Your task to perform on an android device: turn off improve location accuracy Image 0: 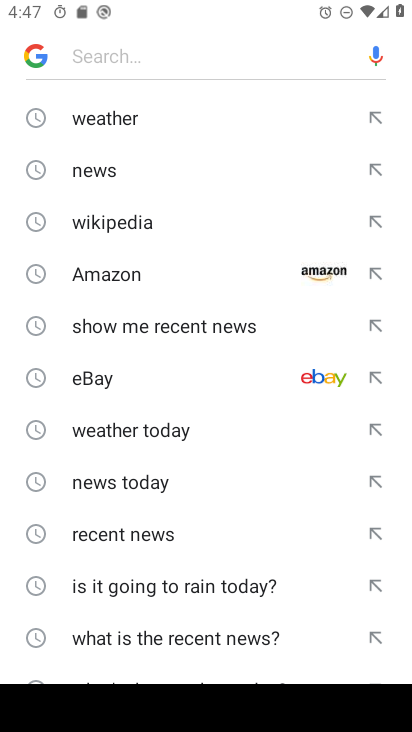
Step 0: press home button
Your task to perform on an android device: turn off improve location accuracy Image 1: 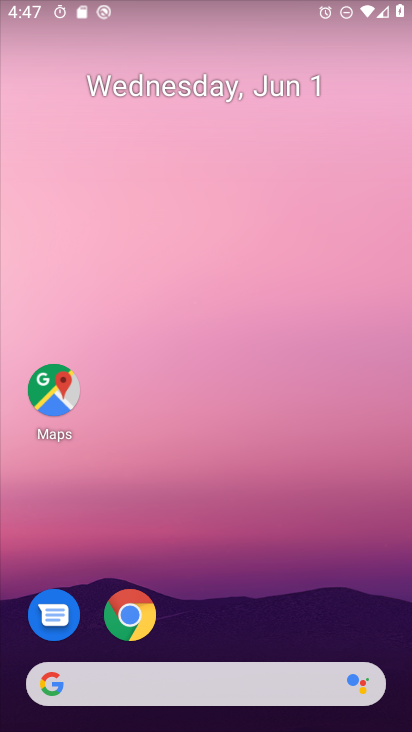
Step 1: drag from (264, 642) to (202, 116)
Your task to perform on an android device: turn off improve location accuracy Image 2: 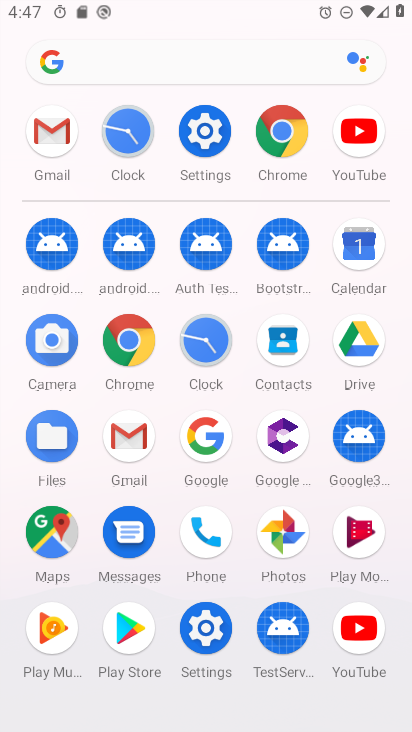
Step 2: click (214, 644)
Your task to perform on an android device: turn off improve location accuracy Image 3: 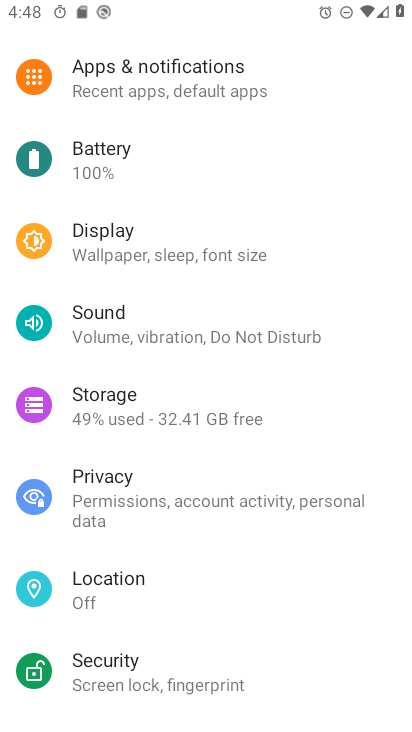
Step 3: drag from (256, 368) to (277, 125)
Your task to perform on an android device: turn off improve location accuracy Image 4: 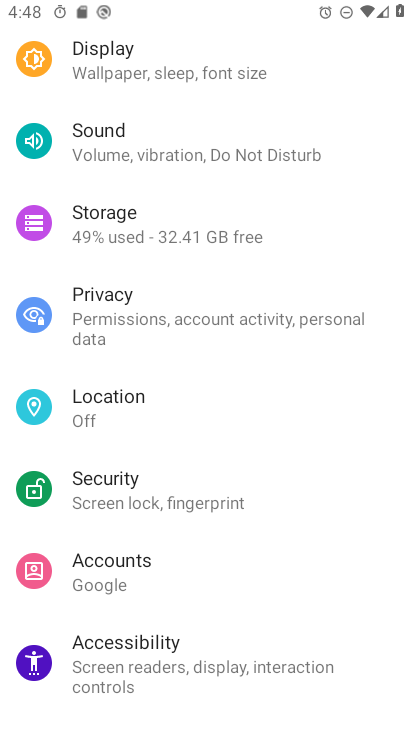
Step 4: click (145, 639)
Your task to perform on an android device: turn off improve location accuracy Image 5: 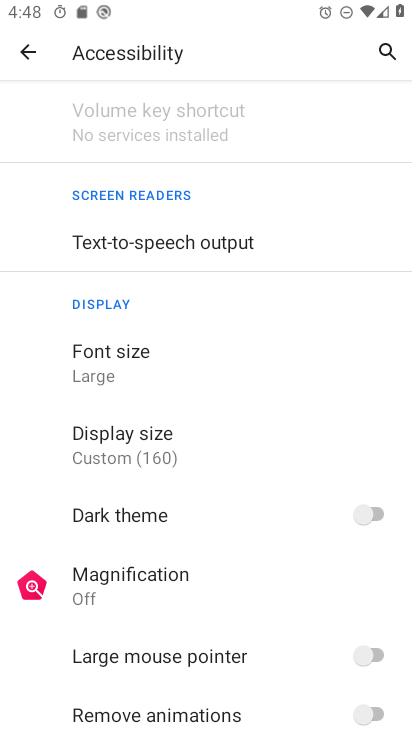
Step 5: drag from (280, 594) to (290, 179)
Your task to perform on an android device: turn off improve location accuracy Image 6: 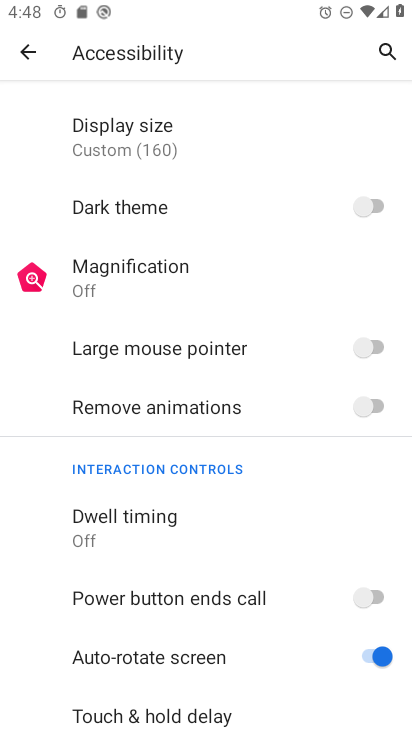
Step 6: drag from (253, 518) to (222, 233)
Your task to perform on an android device: turn off improve location accuracy Image 7: 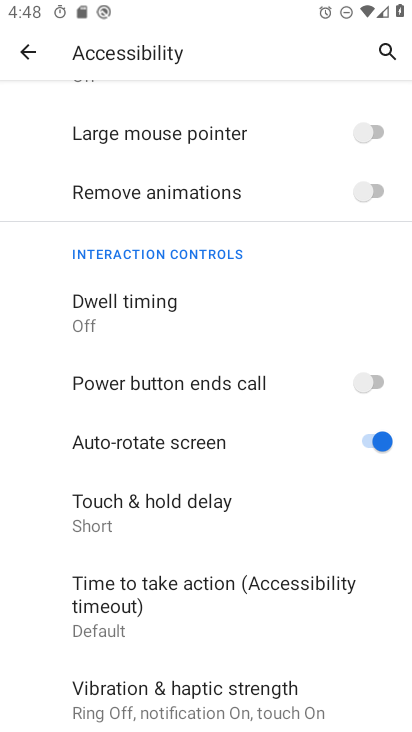
Step 7: drag from (251, 664) to (256, 343)
Your task to perform on an android device: turn off improve location accuracy Image 8: 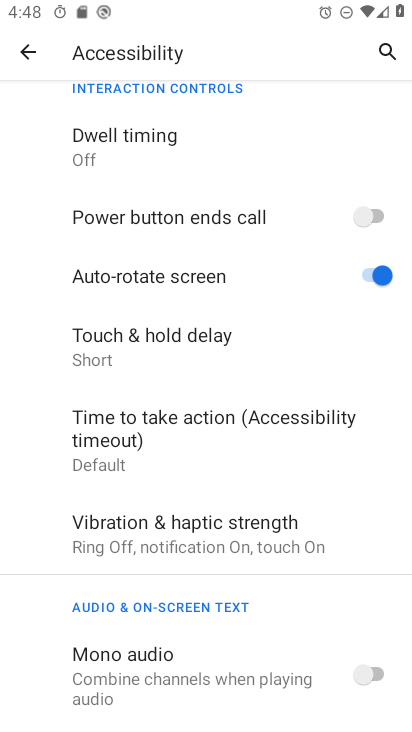
Step 8: drag from (261, 624) to (272, 291)
Your task to perform on an android device: turn off improve location accuracy Image 9: 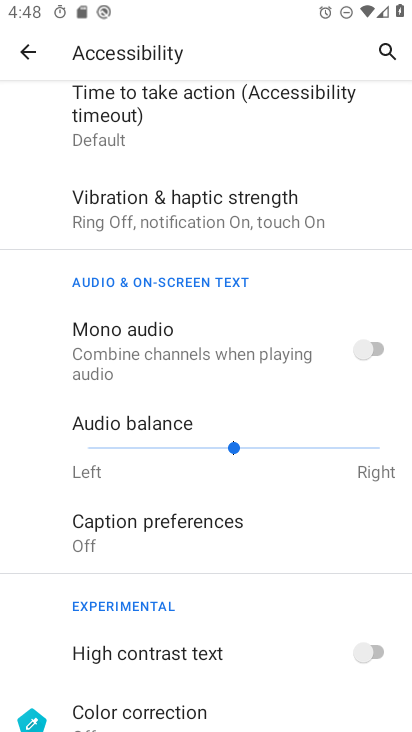
Step 9: drag from (285, 598) to (232, 192)
Your task to perform on an android device: turn off improve location accuracy Image 10: 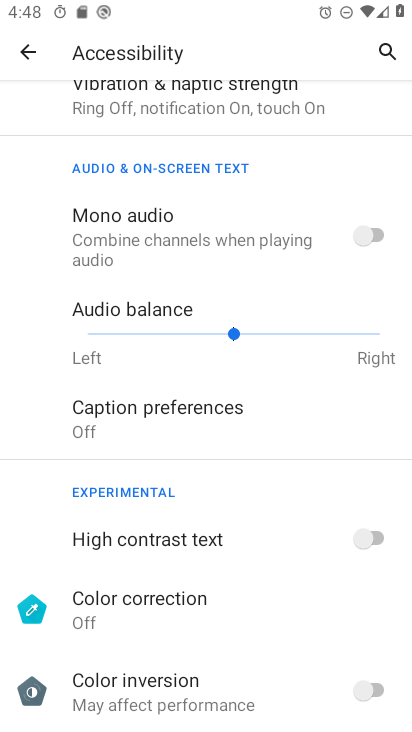
Step 10: press back button
Your task to perform on an android device: turn off improve location accuracy Image 11: 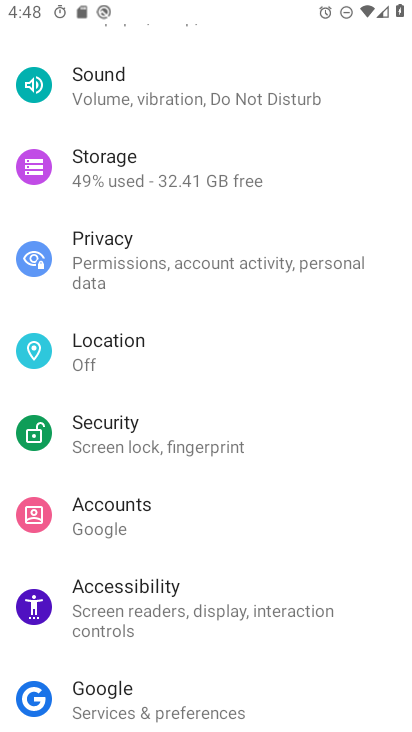
Step 11: click (158, 350)
Your task to perform on an android device: turn off improve location accuracy Image 12: 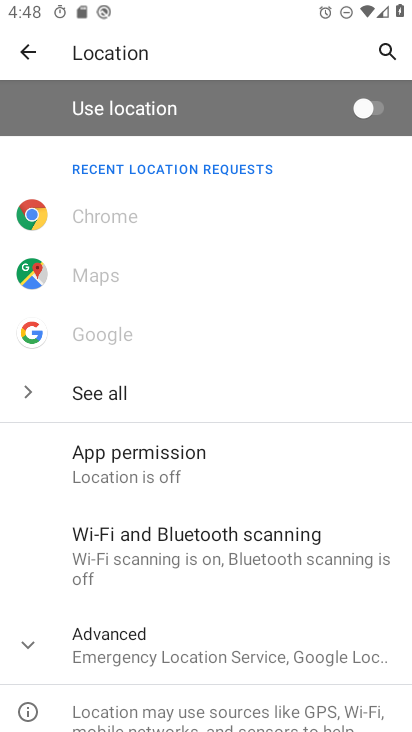
Step 12: click (277, 642)
Your task to perform on an android device: turn off improve location accuracy Image 13: 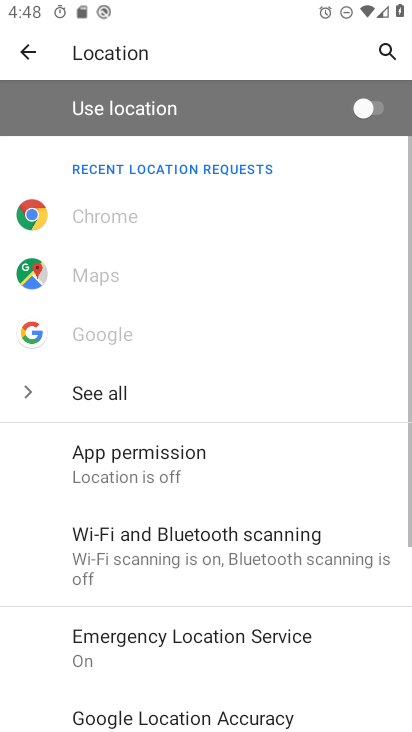
Step 13: drag from (312, 601) to (321, 307)
Your task to perform on an android device: turn off improve location accuracy Image 14: 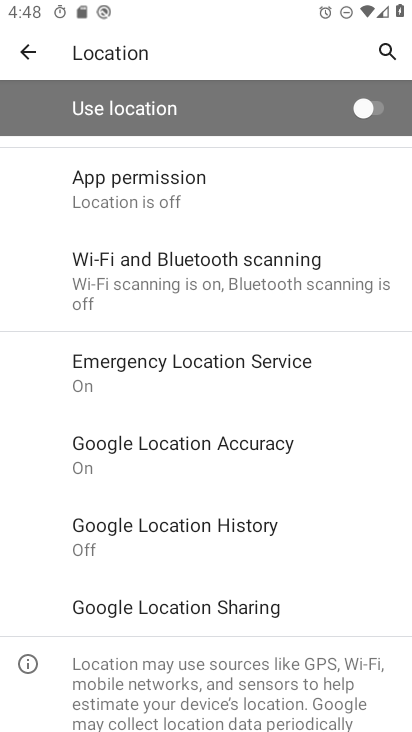
Step 14: click (256, 444)
Your task to perform on an android device: turn off improve location accuracy Image 15: 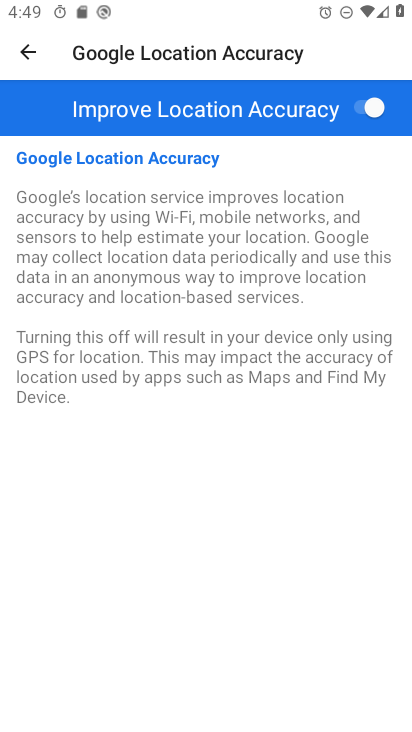
Step 15: click (367, 115)
Your task to perform on an android device: turn off improve location accuracy Image 16: 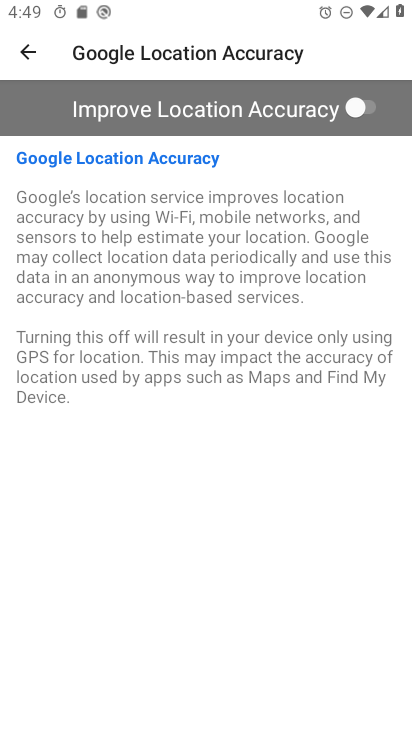
Step 16: task complete